Your task to perform on an android device: Go to ESPN.com Image 0: 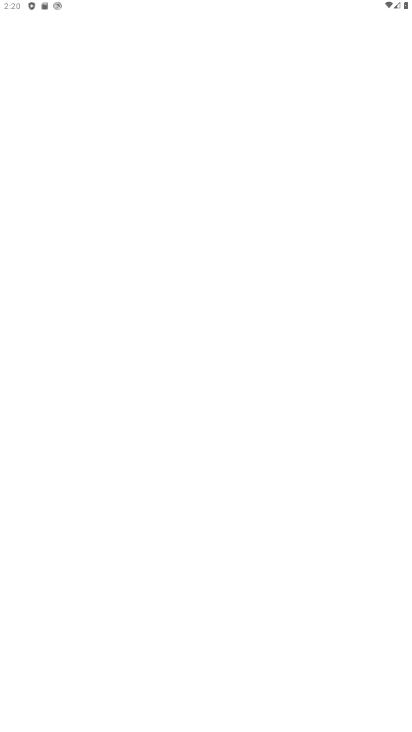
Step 0: click (141, 669)
Your task to perform on an android device: Go to ESPN.com Image 1: 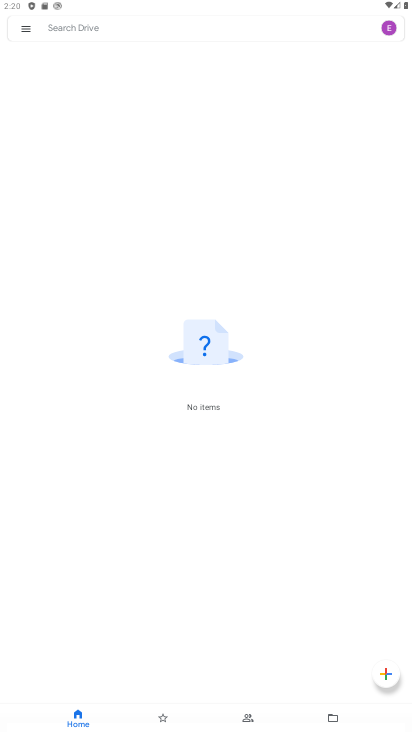
Step 1: press home button
Your task to perform on an android device: Go to ESPN.com Image 2: 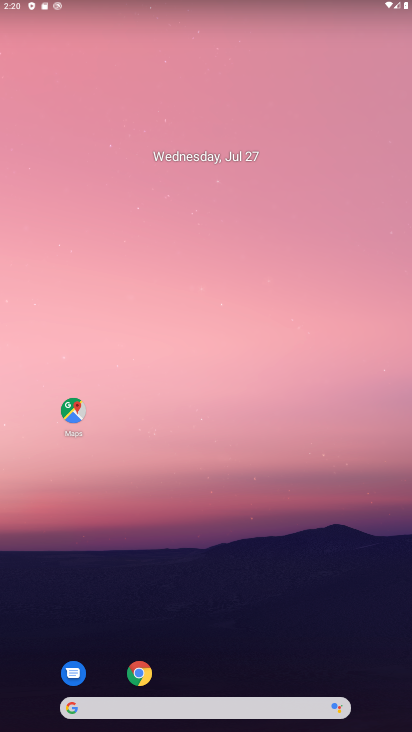
Step 2: click (169, 719)
Your task to perform on an android device: Go to ESPN.com Image 3: 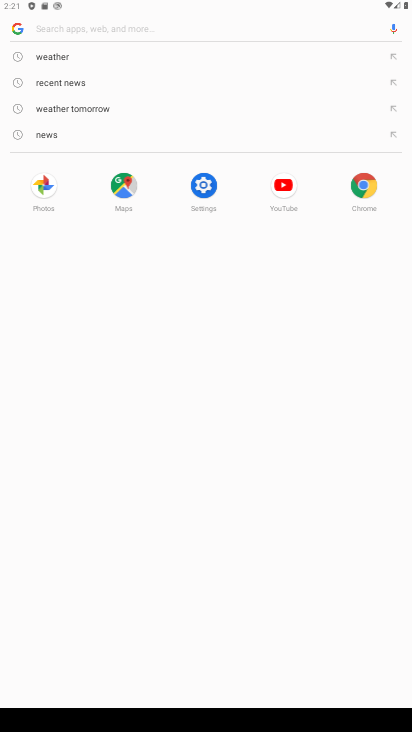
Step 3: type "ESPN.com"
Your task to perform on an android device: Go to ESPN.com Image 4: 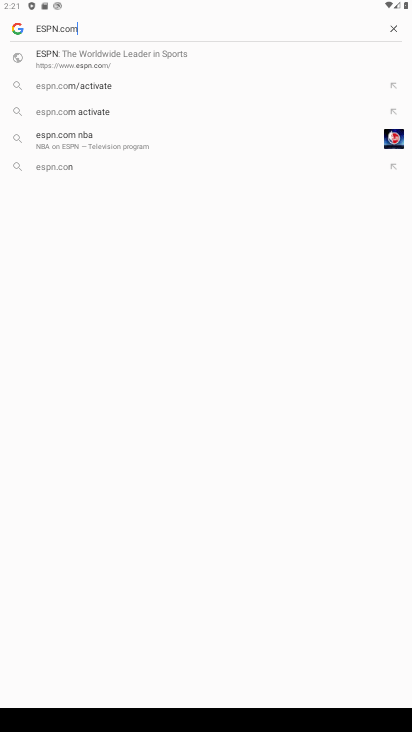
Step 4: type ""
Your task to perform on an android device: Go to ESPN.com Image 5: 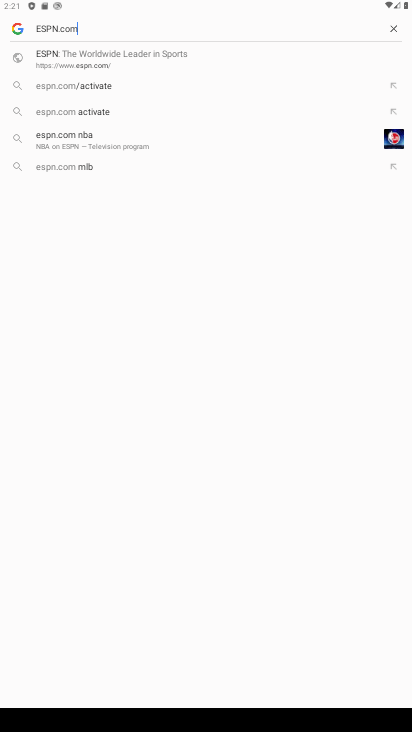
Step 5: task complete